Your task to perform on an android device: search for starred emails in the gmail app Image 0: 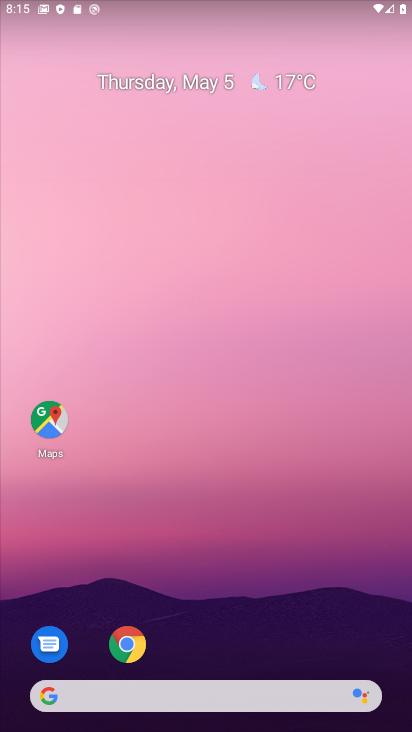
Step 0: drag from (184, 616) to (219, 228)
Your task to perform on an android device: search for starred emails in the gmail app Image 1: 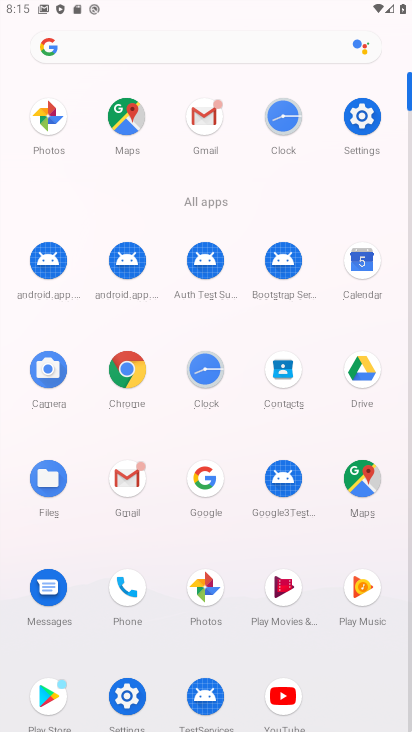
Step 1: click (123, 477)
Your task to perform on an android device: search for starred emails in the gmail app Image 2: 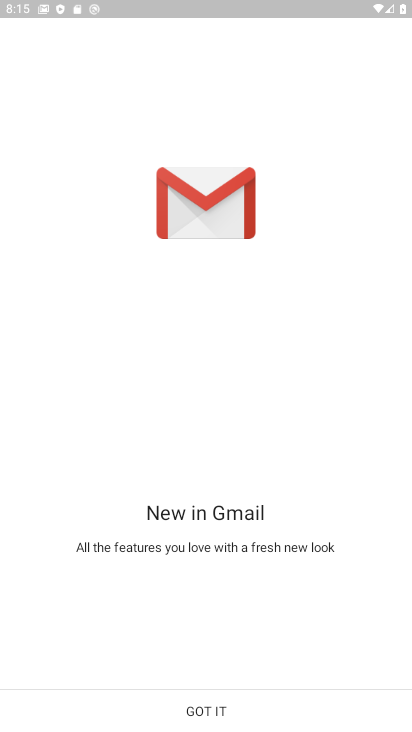
Step 2: click (201, 704)
Your task to perform on an android device: search for starred emails in the gmail app Image 3: 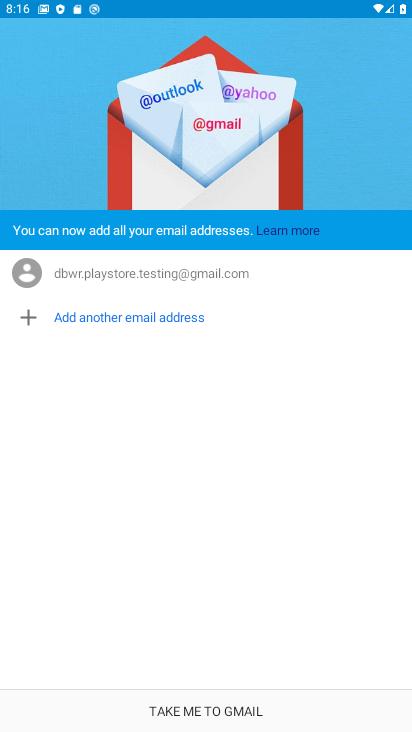
Step 3: click (193, 713)
Your task to perform on an android device: search for starred emails in the gmail app Image 4: 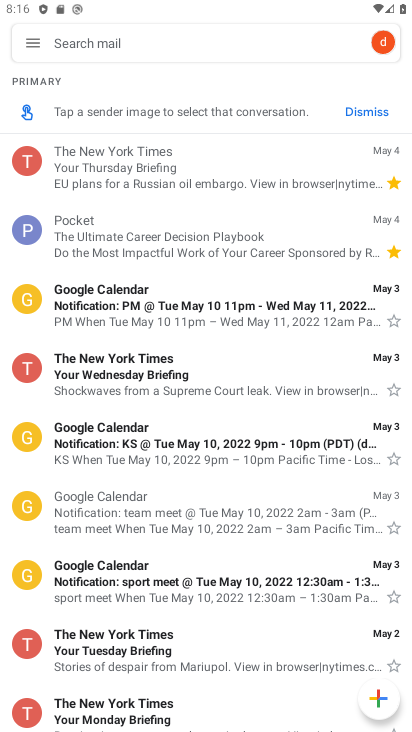
Step 4: drag from (208, 532) to (312, 179)
Your task to perform on an android device: search for starred emails in the gmail app Image 5: 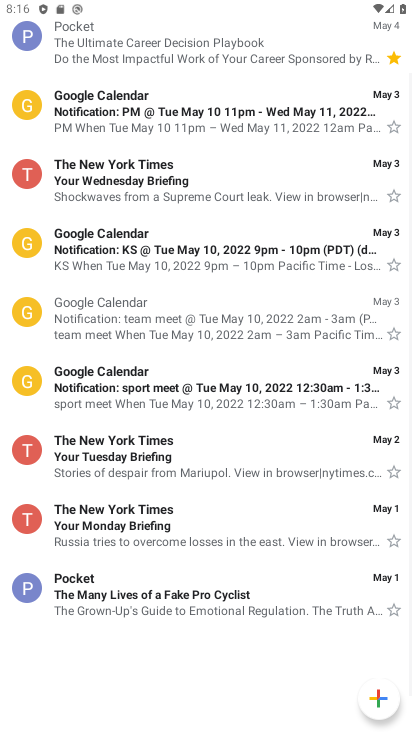
Step 5: drag from (279, 175) to (288, 695)
Your task to perform on an android device: search for starred emails in the gmail app Image 6: 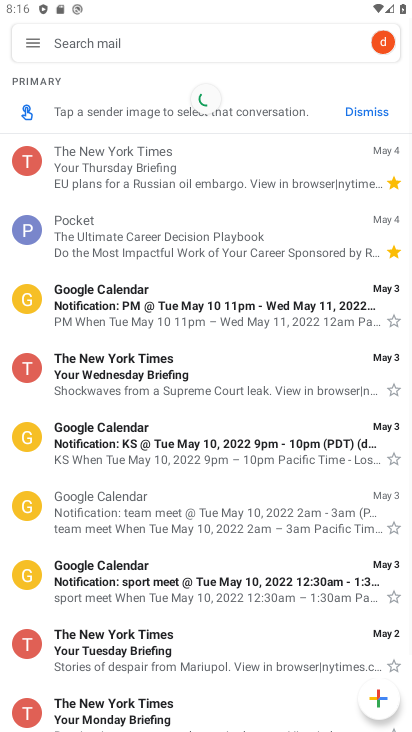
Step 6: click (32, 48)
Your task to perform on an android device: search for starred emails in the gmail app Image 7: 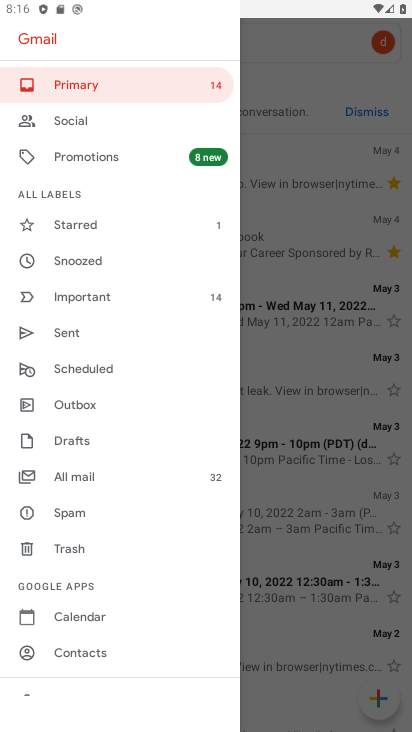
Step 7: click (96, 224)
Your task to perform on an android device: search for starred emails in the gmail app Image 8: 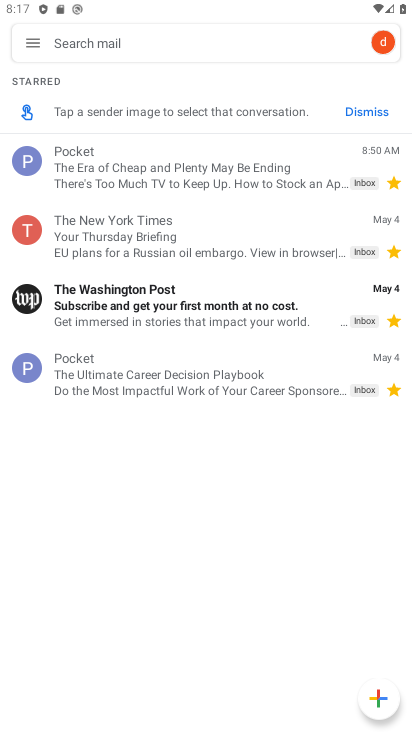
Step 8: click (30, 36)
Your task to perform on an android device: search for starred emails in the gmail app Image 9: 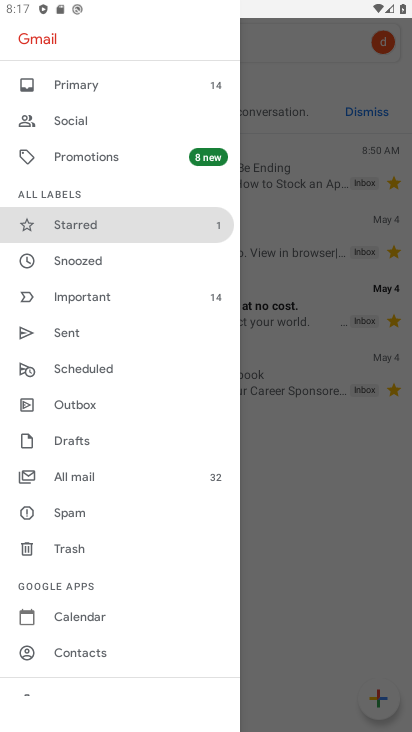
Step 9: click (82, 229)
Your task to perform on an android device: search for starred emails in the gmail app Image 10: 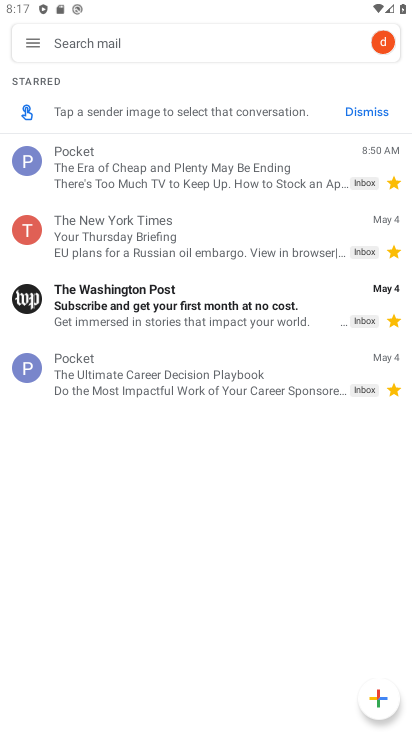
Step 10: task complete